Your task to perform on an android device: toggle wifi Image 0: 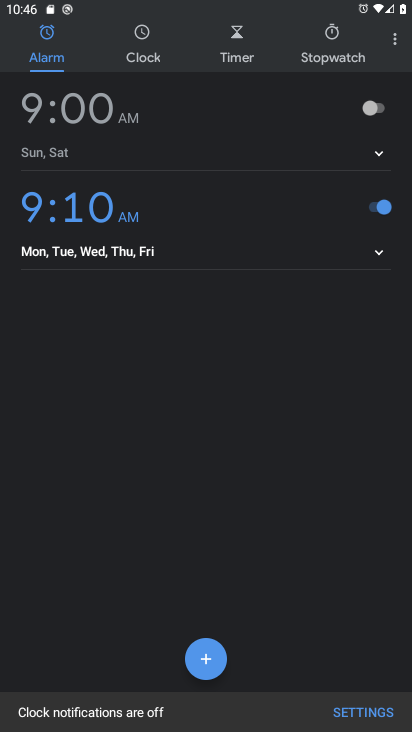
Step 0: press home button
Your task to perform on an android device: toggle wifi Image 1: 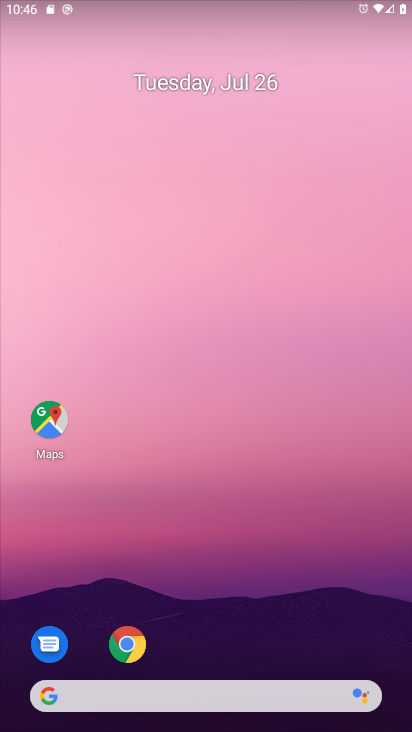
Step 1: drag from (228, 641) to (287, 145)
Your task to perform on an android device: toggle wifi Image 2: 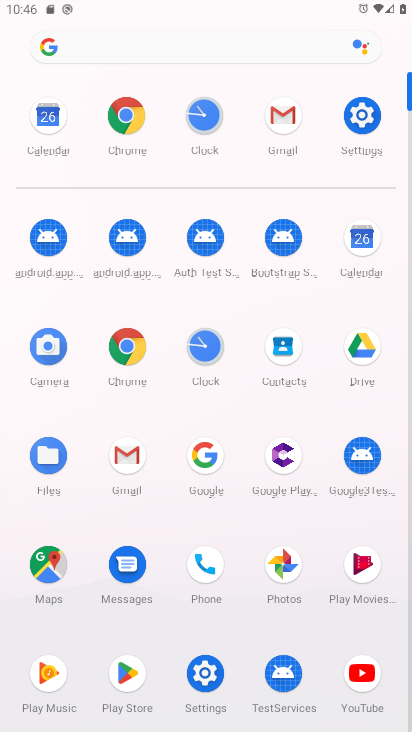
Step 2: click (201, 670)
Your task to perform on an android device: toggle wifi Image 3: 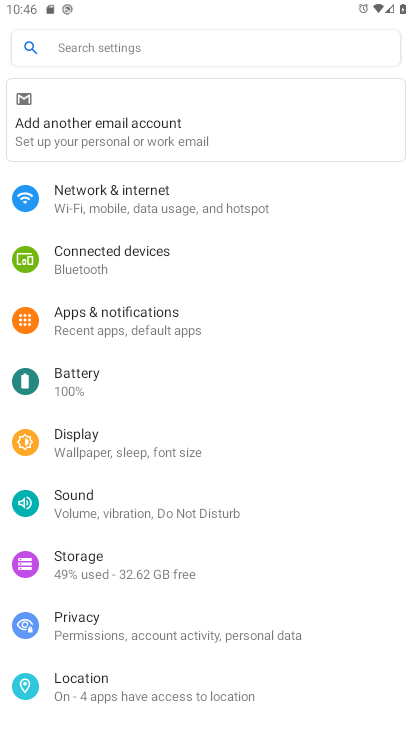
Step 3: click (147, 196)
Your task to perform on an android device: toggle wifi Image 4: 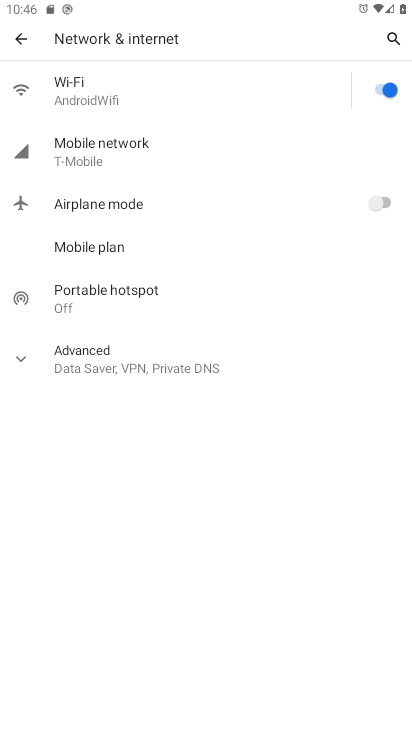
Step 4: click (366, 89)
Your task to perform on an android device: toggle wifi Image 5: 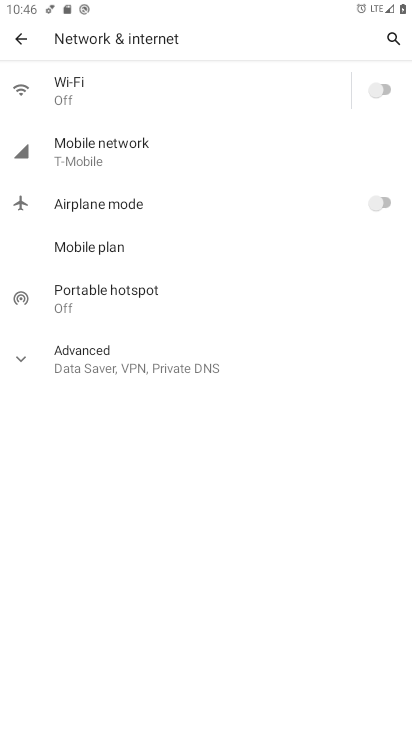
Step 5: task complete